Your task to perform on an android device: Open my contact list Image 0: 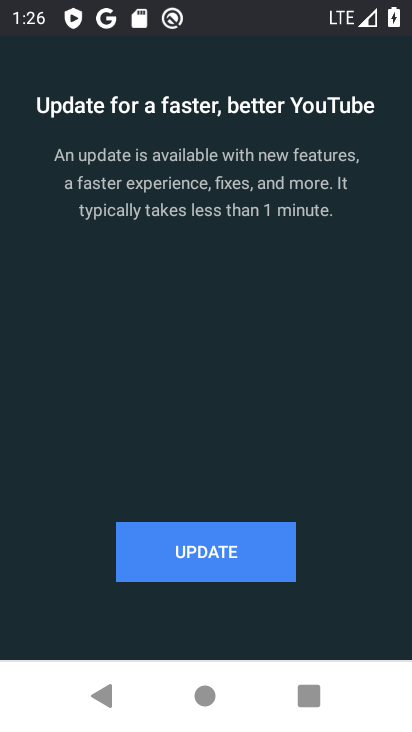
Step 0: press home button
Your task to perform on an android device: Open my contact list Image 1: 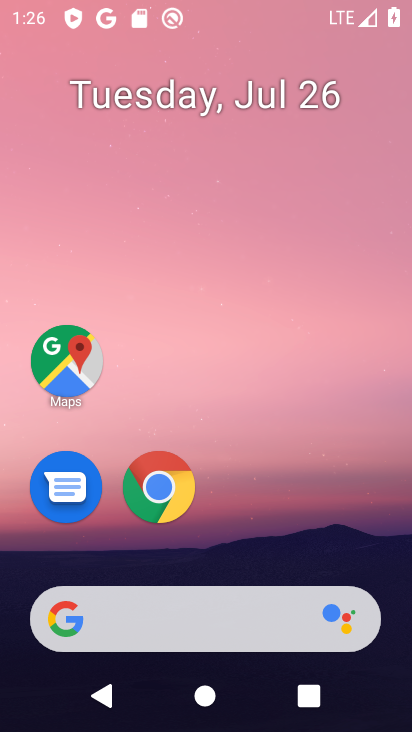
Step 1: drag from (228, 593) to (261, 87)
Your task to perform on an android device: Open my contact list Image 2: 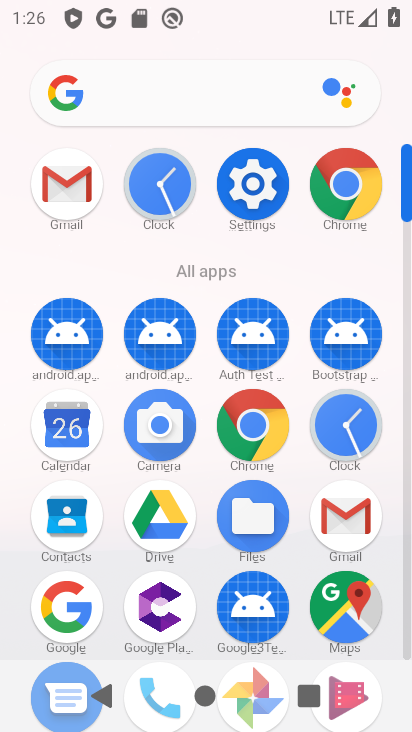
Step 2: click (80, 529)
Your task to perform on an android device: Open my contact list Image 3: 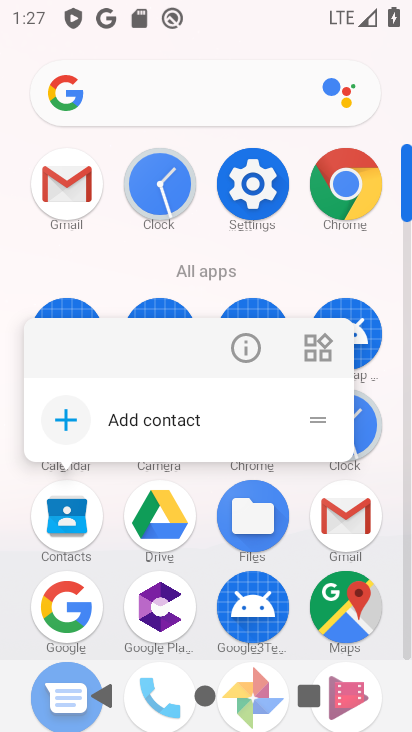
Step 3: click (87, 532)
Your task to perform on an android device: Open my contact list Image 4: 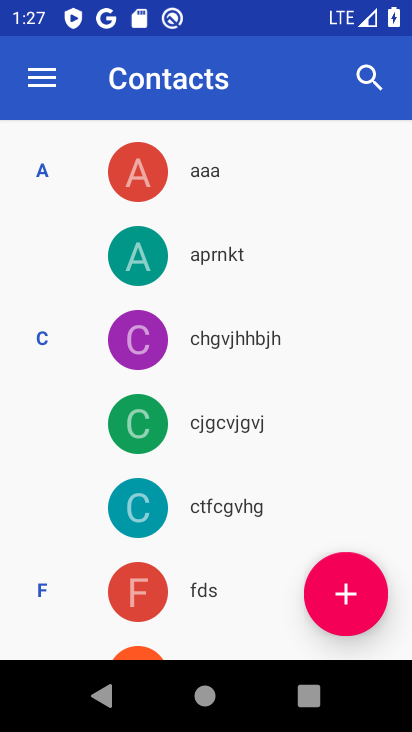
Step 4: task complete